Your task to perform on an android device: Search for Mexican restaurants on Maps Image 0: 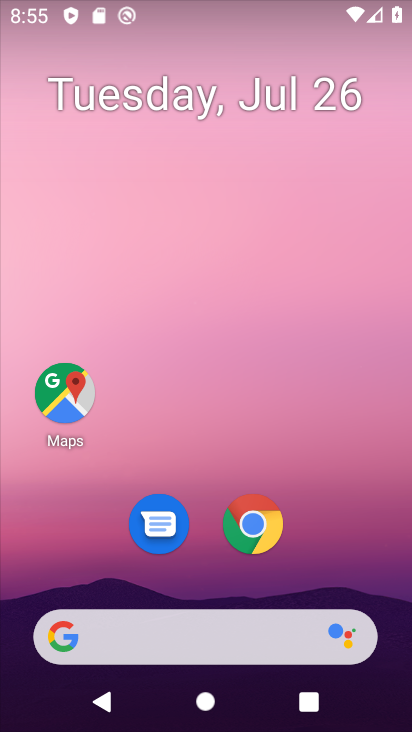
Step 0: press home button
Your task to perform on an android device: Search for Mexican restaurants on Maps Image 1: 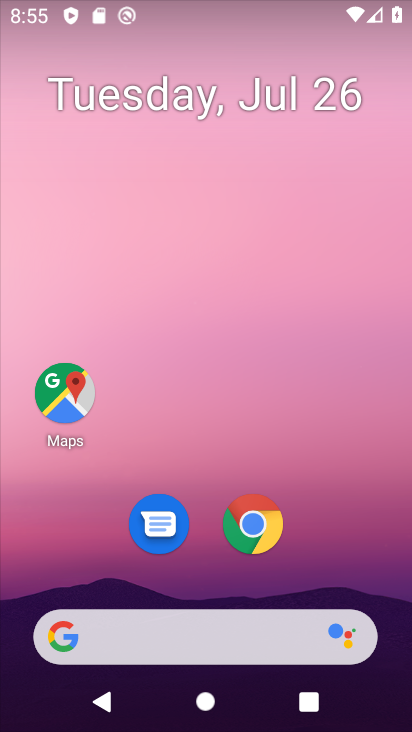
Step 1: click (72, 404)
Your task to perform on an android device: Search for Mexican restaurants on Maps Image 2: 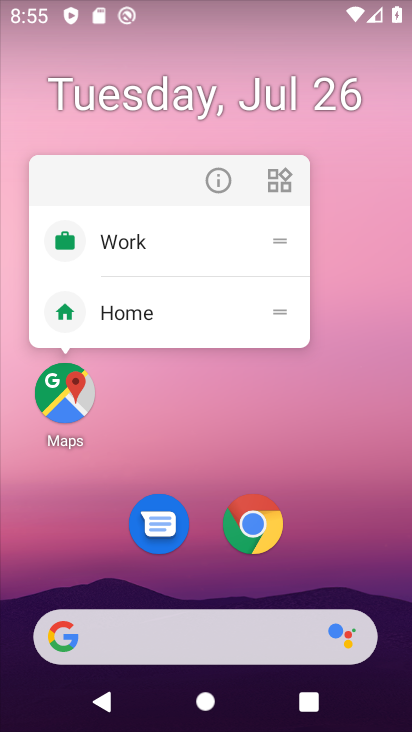
Step 2: click (68, 394)
Your task to perform on an android device: Search for Mexican restaurants on Maps Image 3: 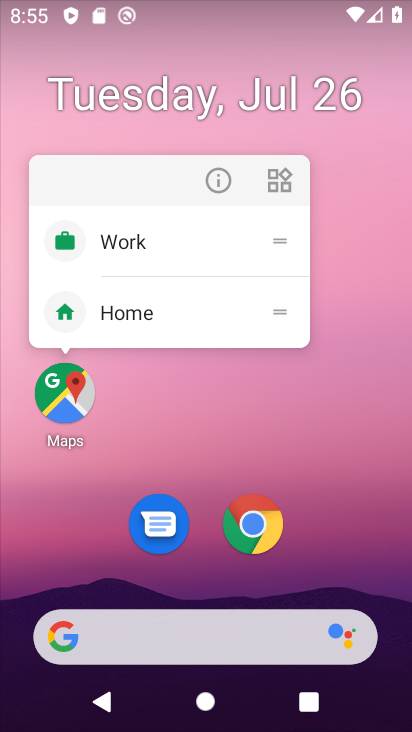
Step 3: click (63, 410)
Your task to perform on an android device: Search for Mexican restaurants on Maps Image 4: 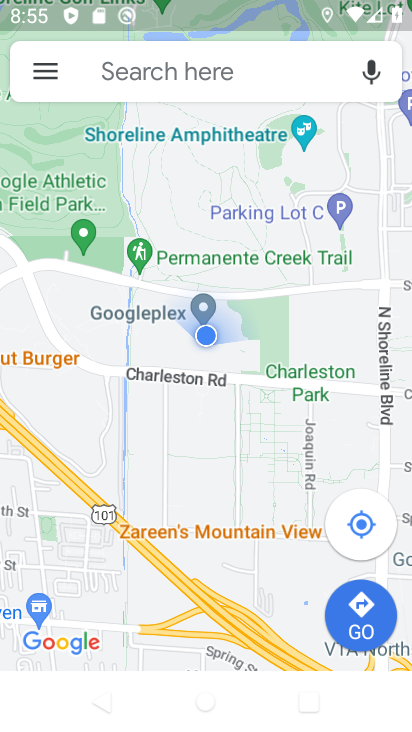
Step 4: click (195, 70)
Your task to perform on an android device: Search for Mexican restaurants on Maps Image 5: 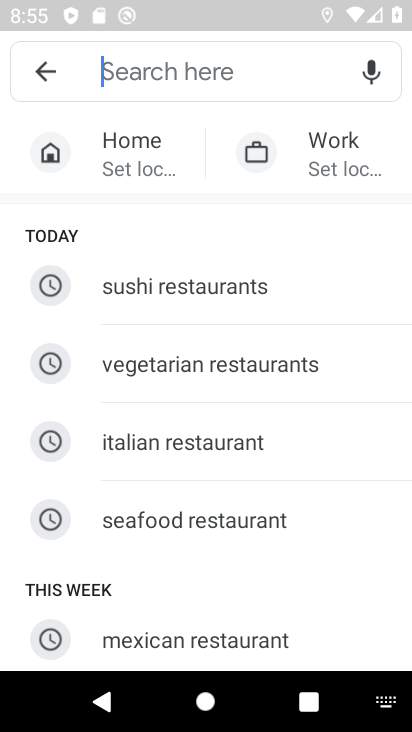
Step 5: click (171, 643)
Your task to perform on an android device: Search for Mexican restaurants on Maps Image 6: 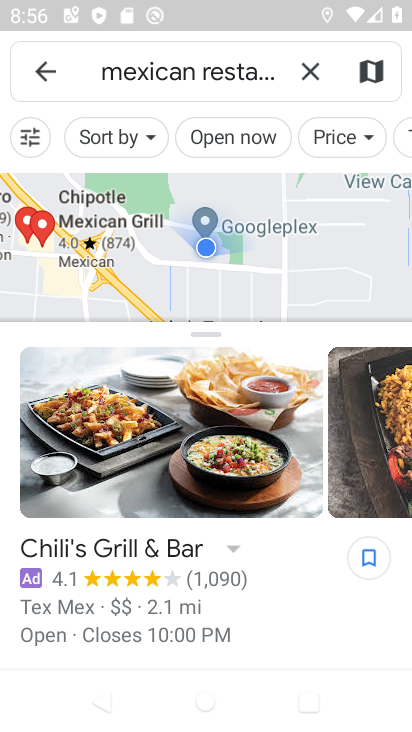
Step 6: task complete